Your task to perform on an android device: Show the shopping cart on bestbuy. Add "acer nitro" to the cart on bestbuy Image 0: 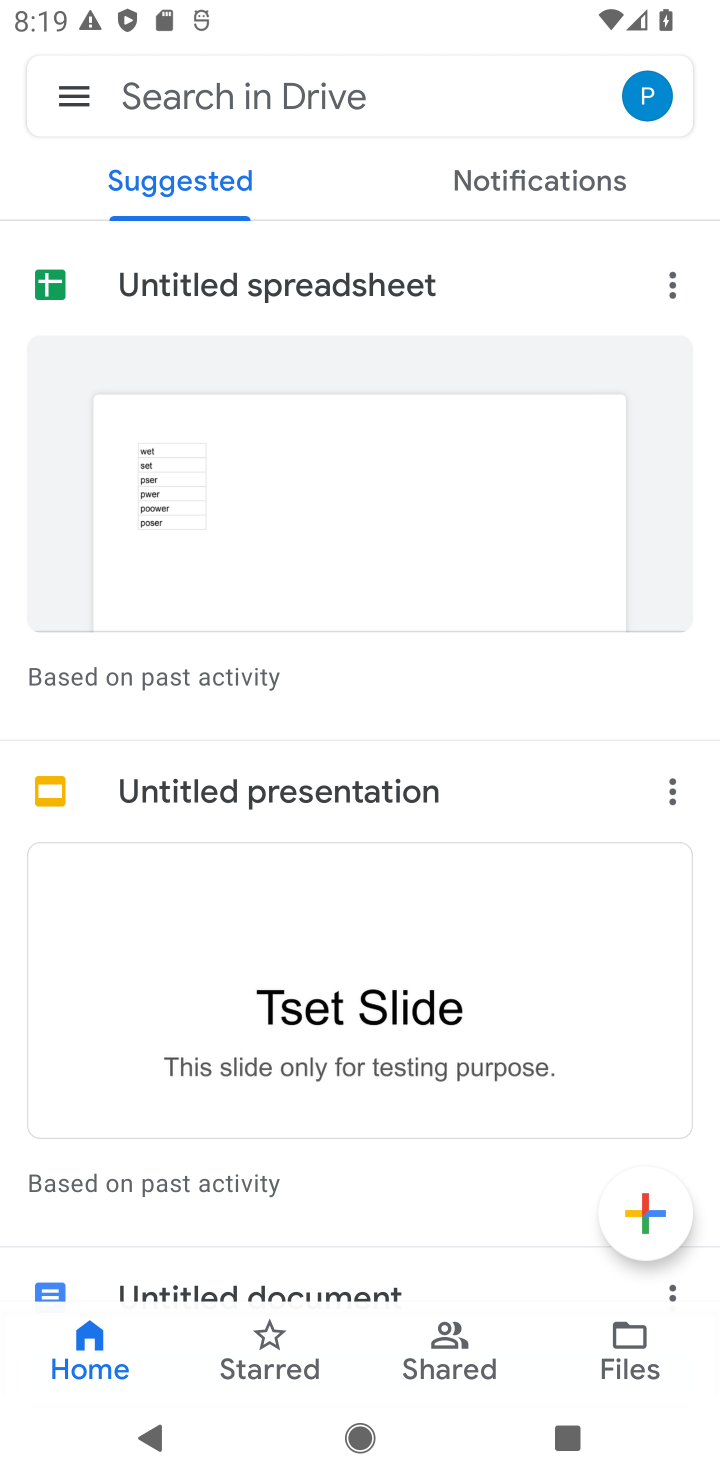
Step 0: task complete